Your task to perform on an android device: Open display settings Image 0: 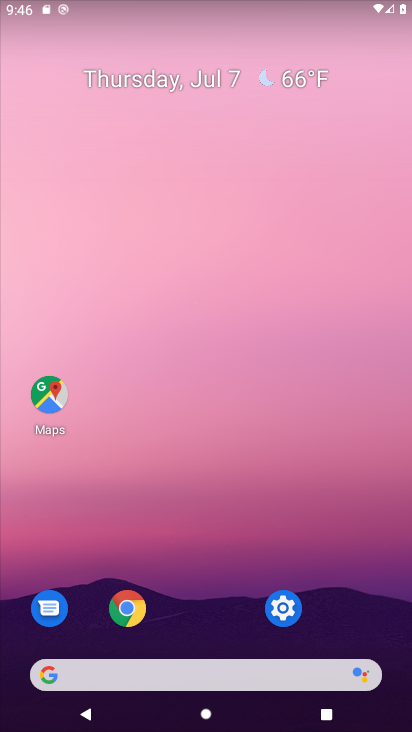
Step 0: click (292, 617)
Your task to perform on an android device: Open display settings Image 1: 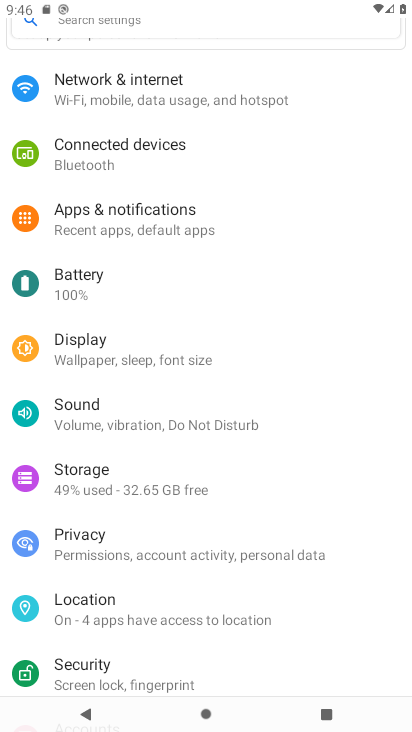
Step 1: click (121, 342)
Your task to perform on an android device: Open display settings Image 2: 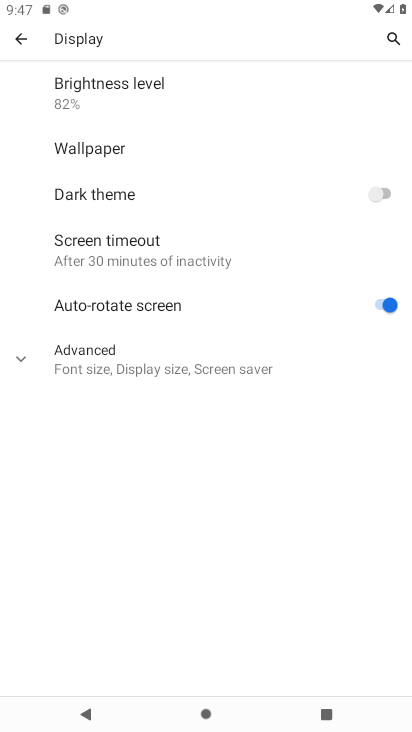
Step 2: task complete